Your task to perform on an android device: change alarm snooze length Image 0: 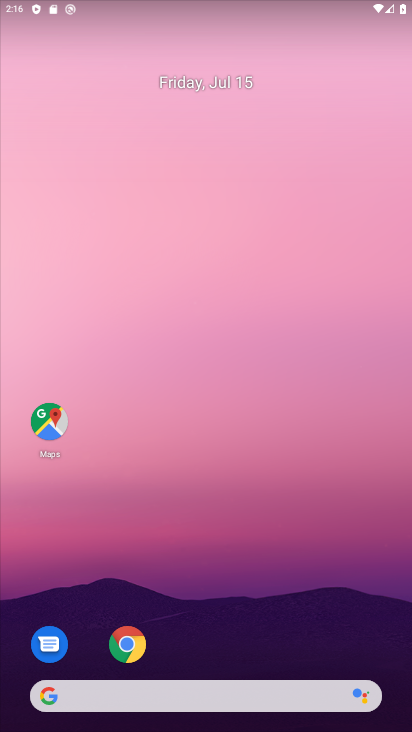
Step 0: drag from (221, 616) to (260, 7)
Your task to perform on an android device: change alarm snooze length Image 1: 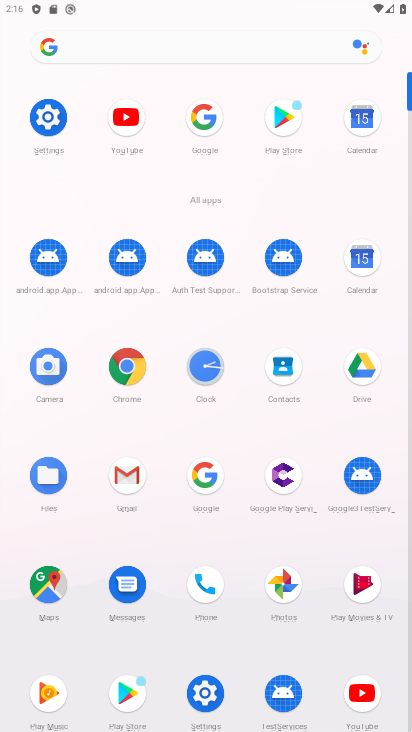
Step 1: click (217, 377)
Your task to perform on an android device: change alarm snooze length Image 2: 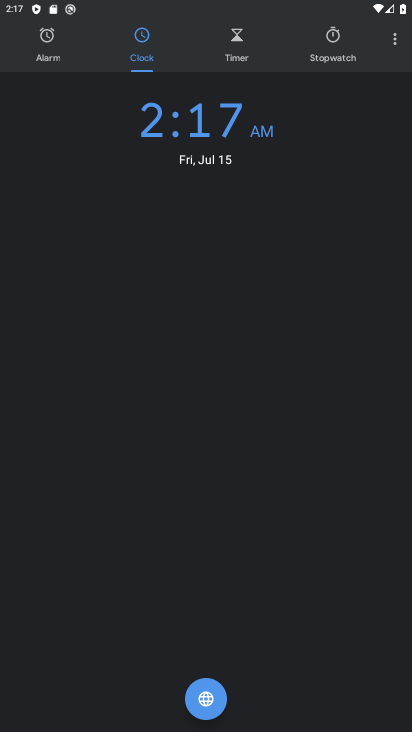
Step 2: click (392, 38)
Your task to perform on an android device: change alarm snooze length Image 3: 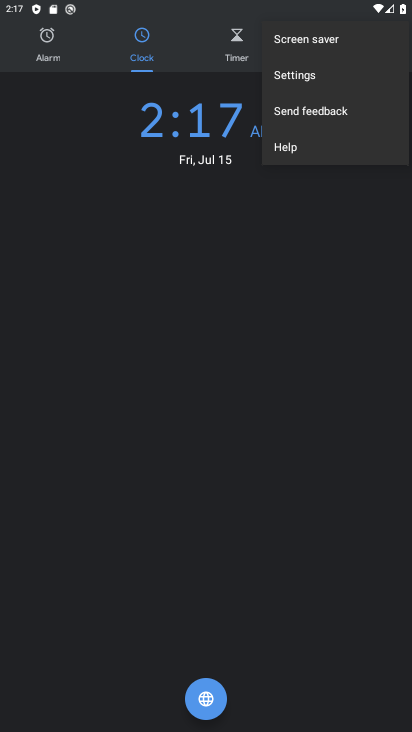
Step 3: click (312, 73)
Your task to perform on an android device: change alarm snooze length Image 4: 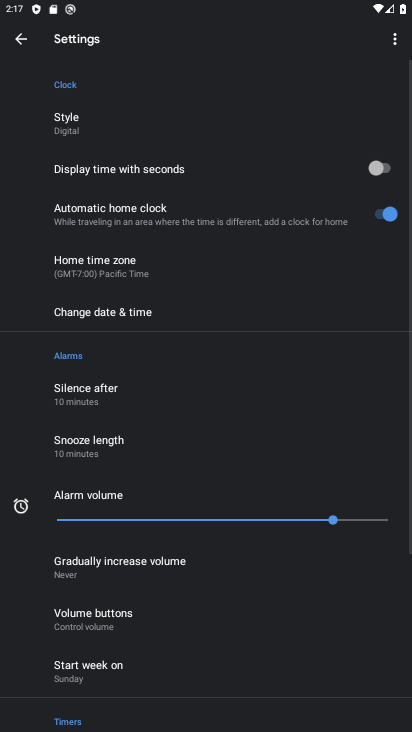
Step 4: click (138, 447)
Your task to perform on an android device: change alarm snooze length Image 5: 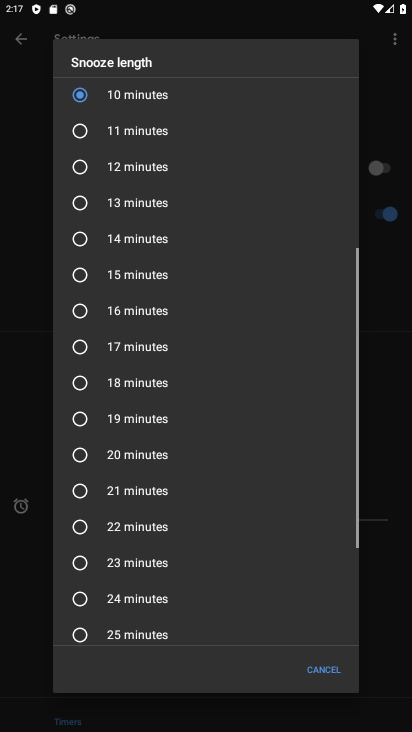
Step 5: click (89, 125)
Your task to perform on an android device: change alarm snooze length Image 6: 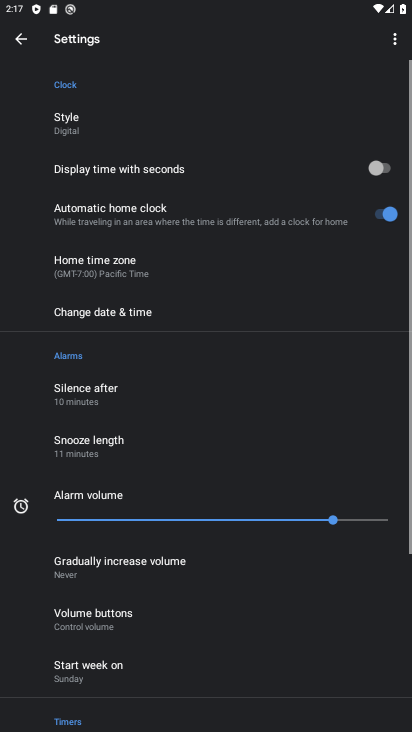
Step 6: task complete